Your task to perform on an android device: Clear the cart on walmart. Search for acer predator on walmart, select the first entry, add it to the cart, then select checkout. Image 0: 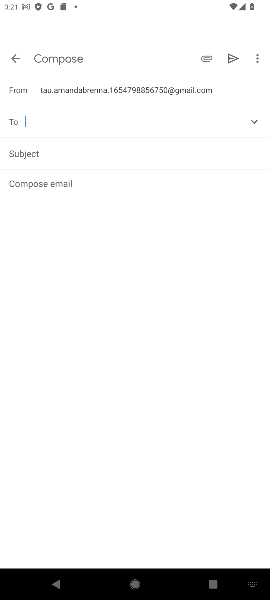
Step 0: press home button
Your task to perform on an android device: Clear the cart on walmart. Search for acer predator on walmart, select the first entry, add it to the cart, then select checkout. Image 1: 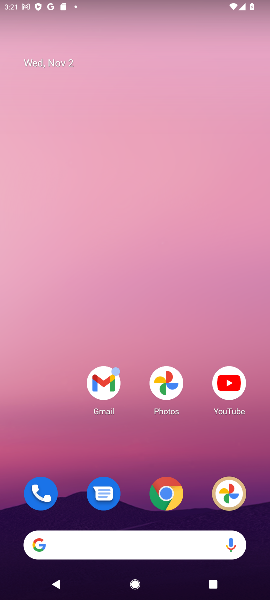
Step 1: drag from (84, 501) to (98, 62)
Your task to perform on an android device: Clear the cart on walmart. Search for acer predator on walmart, select the first entry, add it to the cart, then select checkout. Image 2: 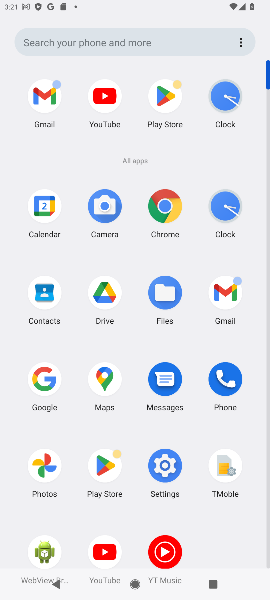
Step 2: click (48, 372)
Your task to perform on an android device: Clear the cart on walmart. Search for acer predator on walmart, select the first entry, add it to the cart, then select checkout. Image 3: 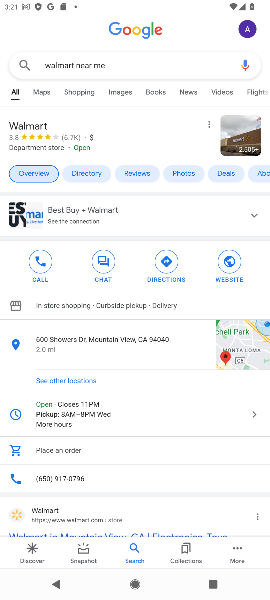
Step 3: click (139, 58)
Your task to perform on an android device: Clear the cart on walmart. Search for acer predator on walmart, select the first entry, add it to the cart, then select checkout. Image 4: 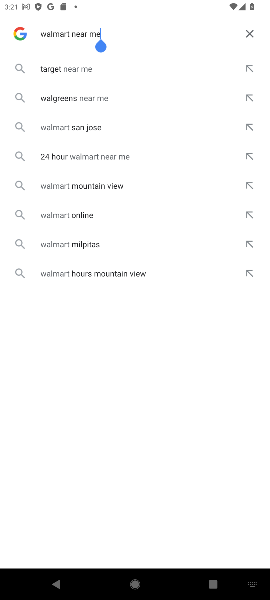
Step 4: click (246, 34)
Your task to perform on an android device: Clear the cart on walmart. Search for acer predator on walmart, select the first entry, add it to the cart, then select checkout. Image 5: 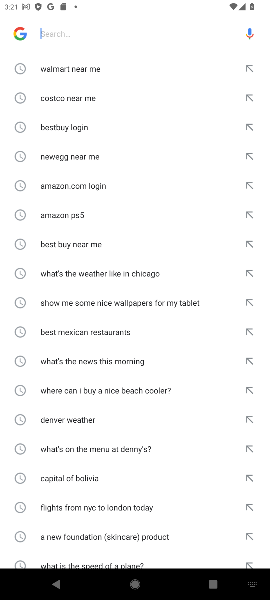
Step 5: click (74, 29)
Your task to perform on an android device: Clear the cart on walmart. Search for acer predator on walmart, select the first entry, add it to the cart, then select checkout. Image 6: 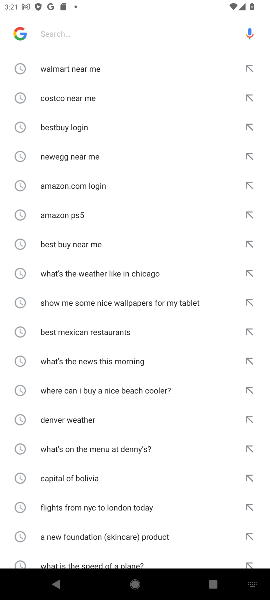
Step 6: click (74, 29)
Your task to perform on an android device: Clear the cart on walmart. Search for acer predator on walmart, select the first entry, add it to the cart, then select checkout. Image 7: 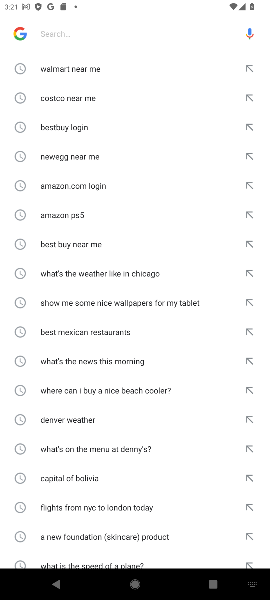
Step 7: type "walmart "
Your task to perform on an android device: Clear the cart on walmart. Search for acer predator on walmart, select the first entry, add it to the cart, then select checkout. Image 8: 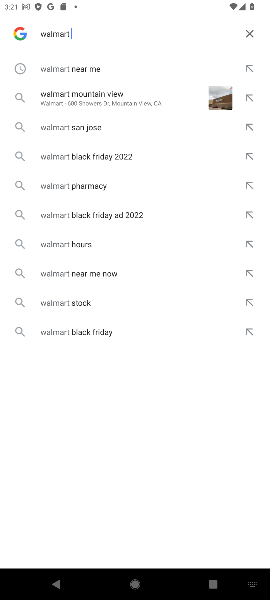
Step 8: click (57, 73)
Your task to perform on an android device: Clear the cart on walmart. Search for acer predator on walmart, select the first entry, add it to the cart, then select checkout. Image 9: 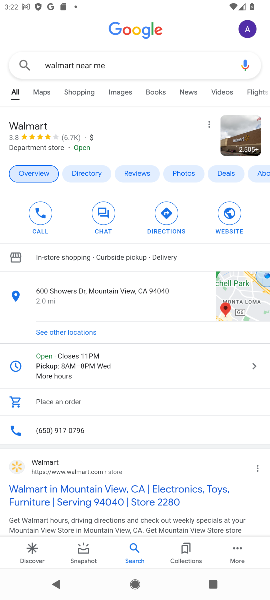
Step 9: click (10, 465)
Your task to perform on an android device: Clear the cart on walmart. Search for acer predator on walmart, select the first entry, add it to the cart, then select checkout. Image 10: 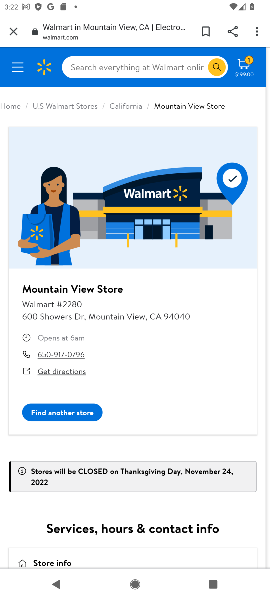
Step 10: click (101, 68)
Your task to perform on an android device: Clear the cart on walmart. Search for acer predator on walmart, select the first entry, add it to the cart, then select checkout. Image 11: 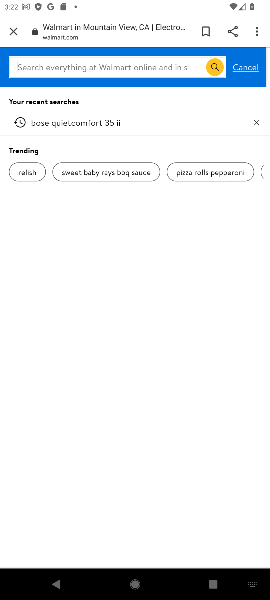
Step 11: click (105, 63)
Your task to perform on an android device: Clear the cart on walmart. Search for acer predator on walmart, select the first entry, add it to the cart, then select checkout. Image 12: 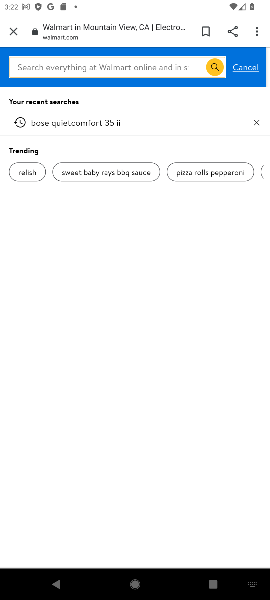
Step 12: type " acer predator "
Your task to perform on an android device: Clear the cart on walmart. Search for acer predator on walmart, select the first entry, add it to the cart, then select checkout. Image 13: 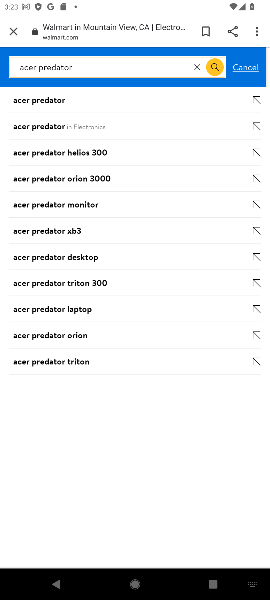
Step 13: click (257, 96)
Your task to perform on an android device: Clear the cart on walmart. Search for acer predator on walmart, select the first entry, add it to the cart, then select checkout. Image 14: 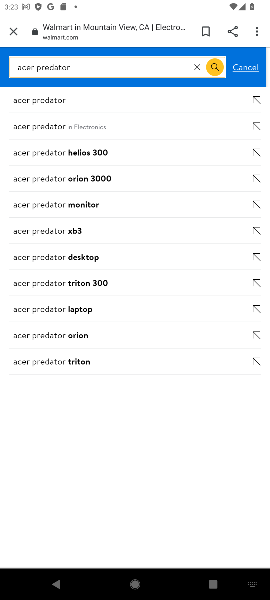
Step 14: click (31, 99)
Your task to perform on an android device: Clear the cart on walmart. Search for acer predator on walmart, select the first entry, add it to the cart, then select checkout. Image 15: 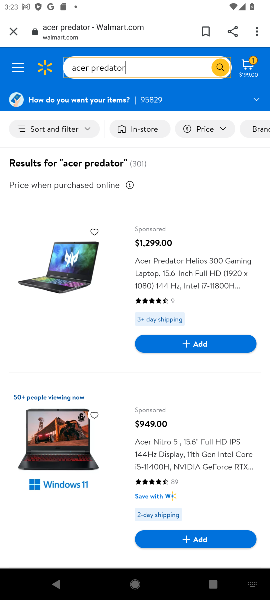
Step 15: click (173, 344)
Your task to perform on an android device: Clear the cart on walmart. Search for acer predator on walmart, select the first entry, add it to the cart, then select checkout. Image 16: 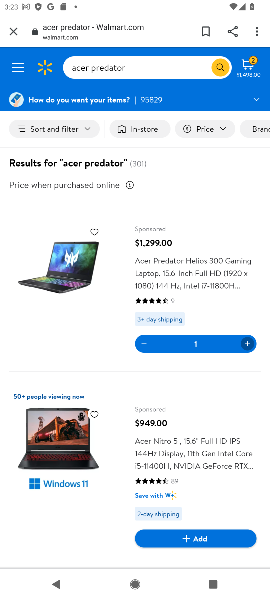
Step 16: task complete